Your task to perform on an android device: turn off smart reply in the gmail app Image 0: 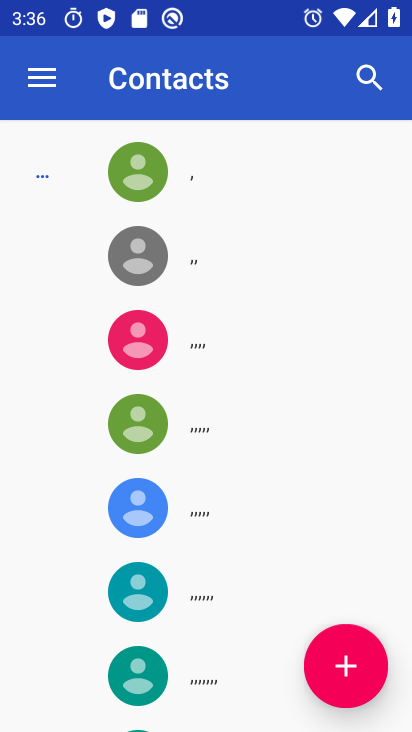
Step 0: press home button
Your task to perform on an android device: turn off smart reply in the gmail app Image 1: 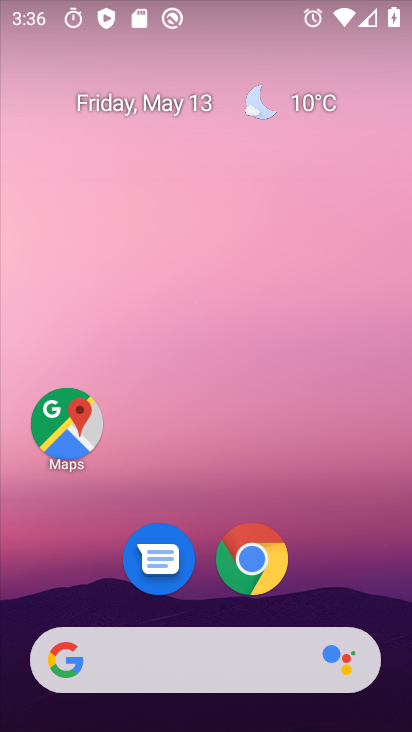
Step 1: drag from (197, 604) to (189, 237)
Your task to perform on an android device: turn off smart reply in the gmail app Image 2: 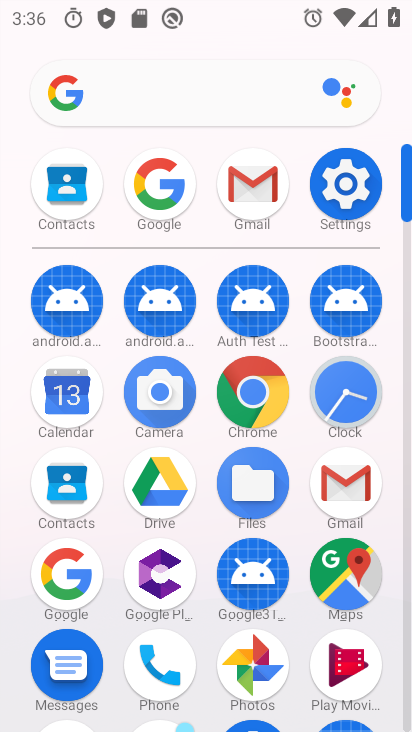
Step 2: click (247, 189)
Your task to perform on an android device: turn off smart reply in the gmail app Image 3: 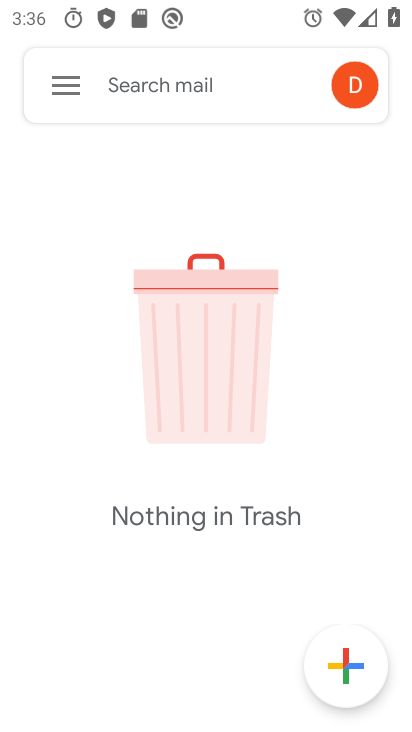
Step 3: click (45, 81)
Your task to perform on an android device: turn off smart reply in the gmail app Image 4: 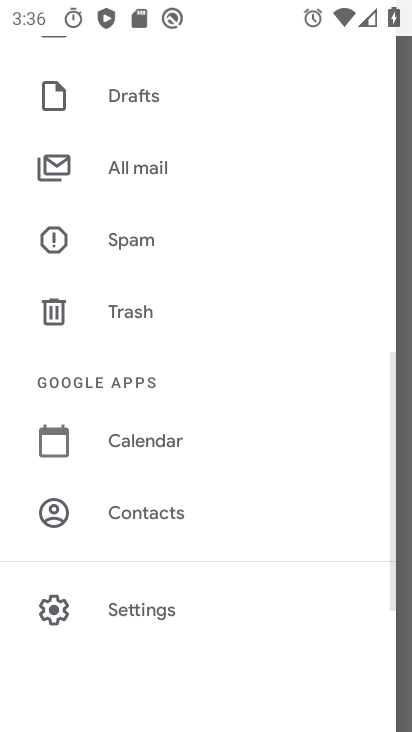
Step 4: click (178, 610)
Your task to perform on an android device: turn off smart reply in the gmail app Image 5: 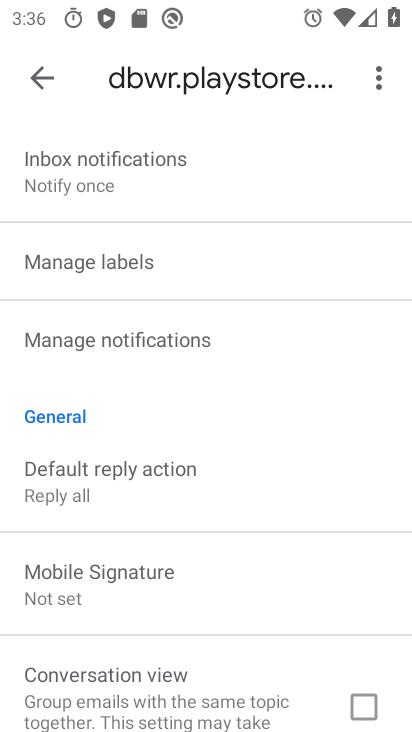
Step 5: drag from (185, 680) to (177, 339)
Your task to perform on an android device: turn off smart reply in the gmail app Image 6: 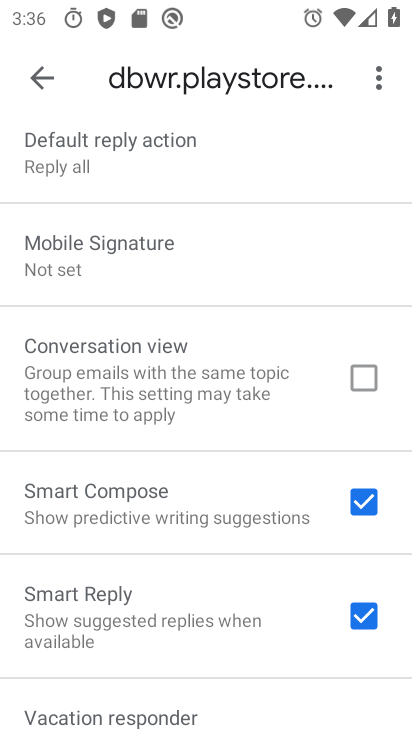
Step 6: click (357, 621)
Your task to perform on an android device: turn off smart reply in the gmail app Image 7: 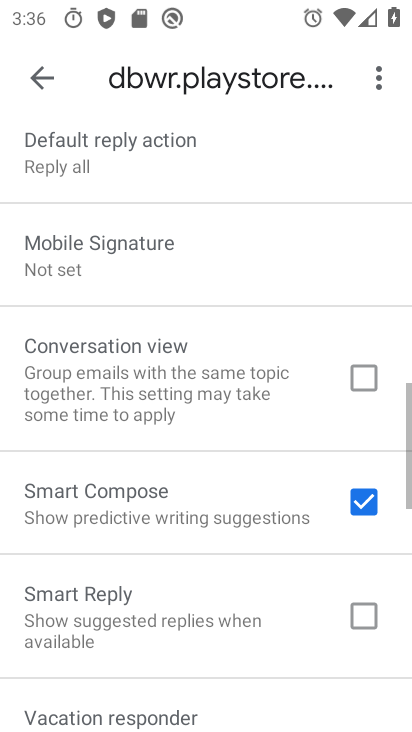
Step 7: task complete